Your task to perform on an android device: Search for vegetarian restaurants on Maps Image 0: 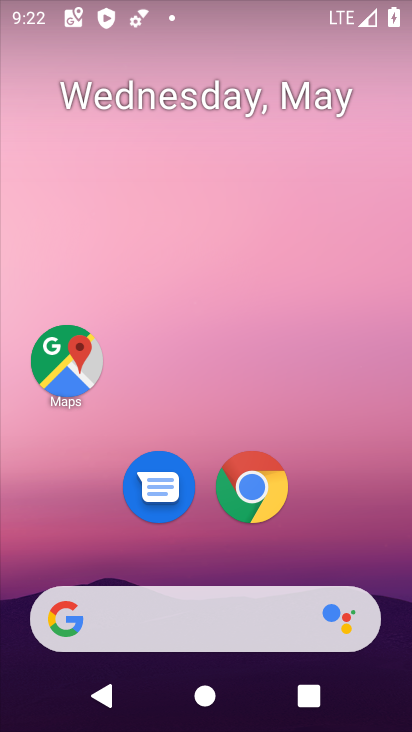
Step 0: click (68, 370)
Your task to perform on an android device: Search for vegetarian restaurants on Maps Image 1: 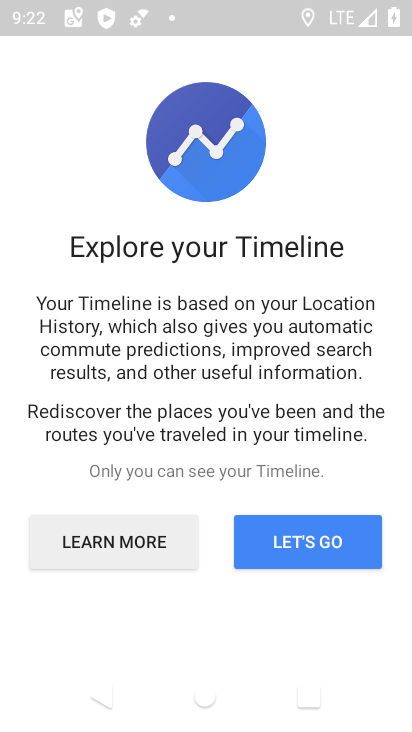
Step 1: click (325, 554)
Your task to perform on an android device: Search for vegetarian restaurants on Maps Image 2: 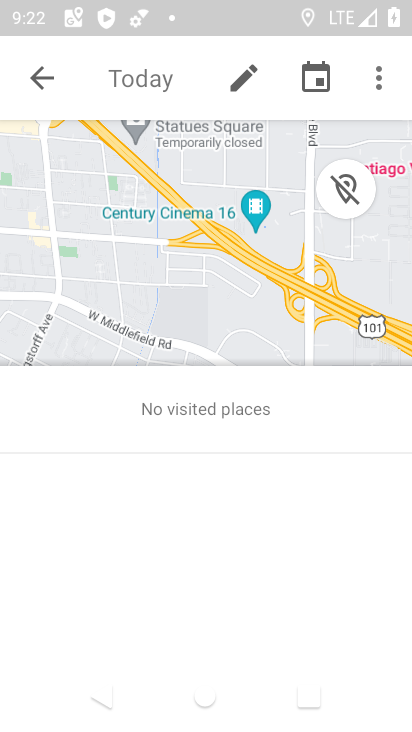
Step 2: click (53, 78)
Your task to perform on an android device: Search for vegetarian restaurants on Maps Image 3: 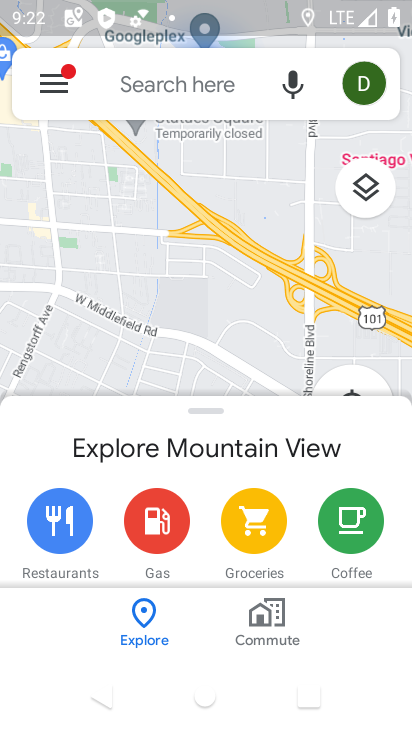
Step 3: click (175, 88)
Your task to perform on an android device: Search for vegetarian restaurants on Maps Image 4: 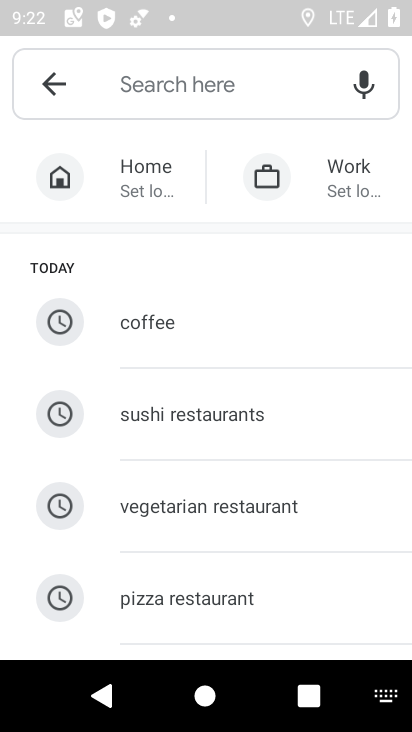
Step 4: click (217, 506)
Your task to perform on an android device: Search for vegetarian restaurants on Maps Image 5: 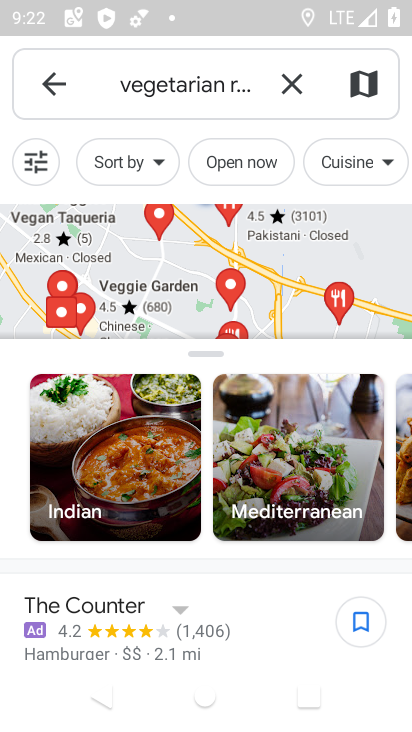
Step 5: task complete